Your task to perform on an android device: Open notification settings Image 0: 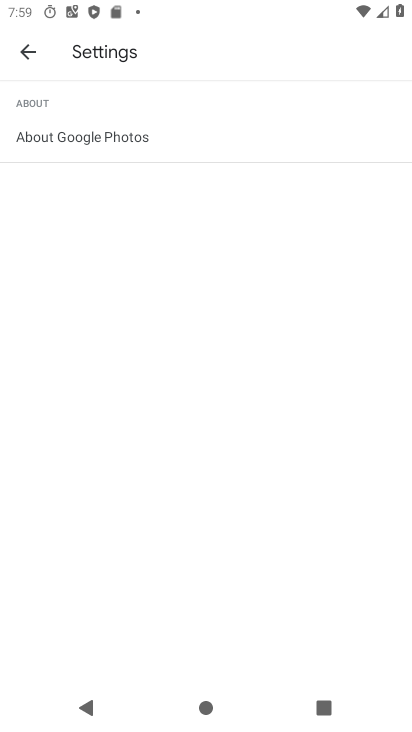
Step 0: press home button
Your task to perform on an android device: Open notification settings Image 1: 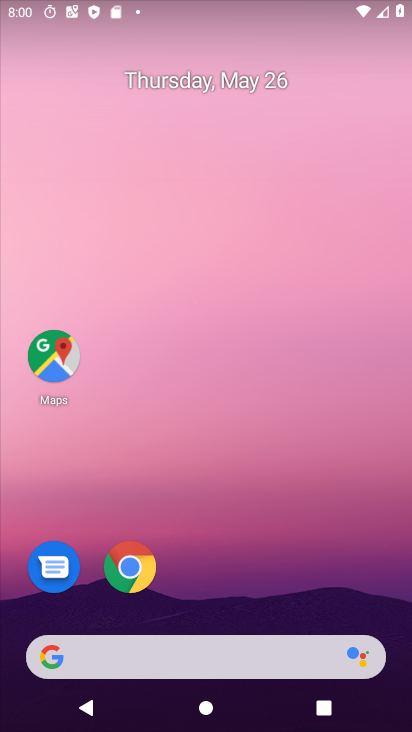
Step 1: drag from (162, 659) to (253, 74)
Your task to perform on an android device: Open notification settings Image 2: 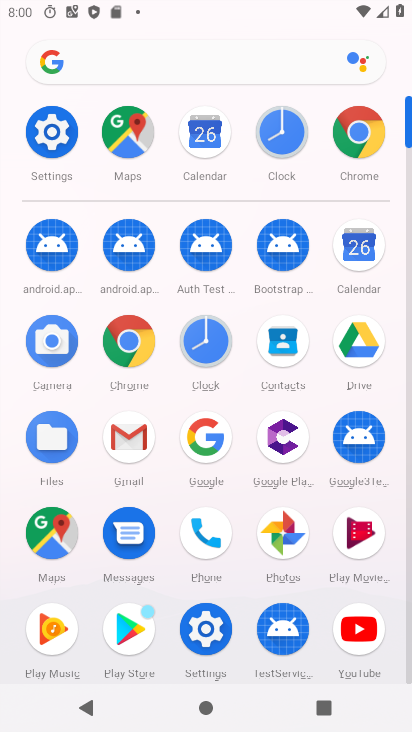
Step 2: click (60, 128)
Your task to perform on an android device: Open notification settings Image 3: 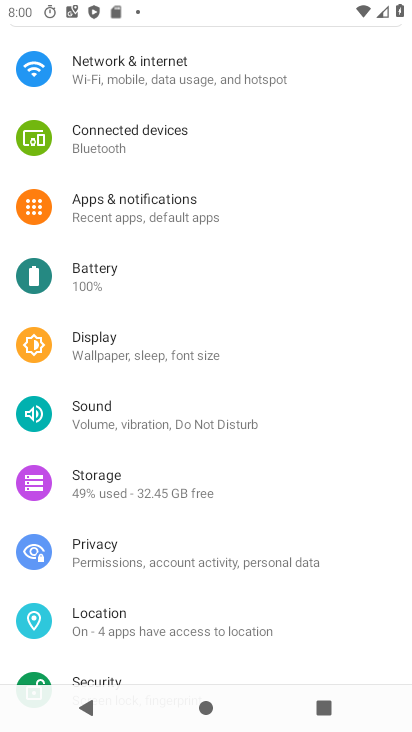
Step 3: click (143, 203)
Your task to perform on an android device: Open notification settings Image 4: 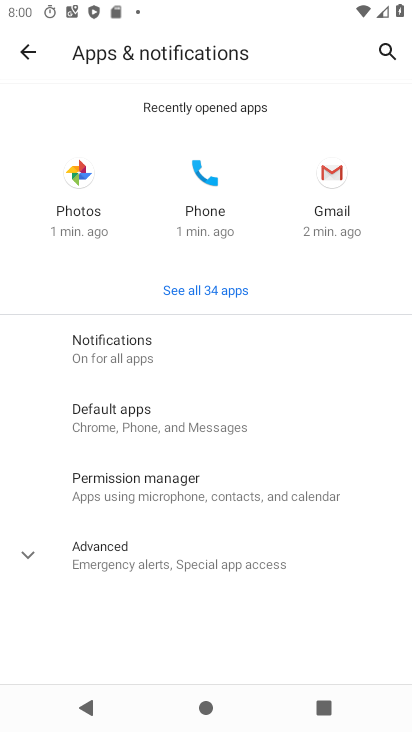
Step 4: click (110, 351)
Your task to perform on an android device: Open notification settings Image 5: 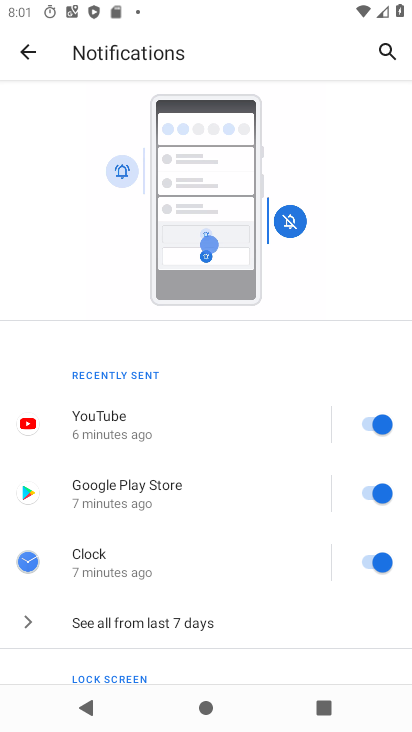
Step 5: task complete